Your task to perform on an android device: set the stopwatch Image 0: 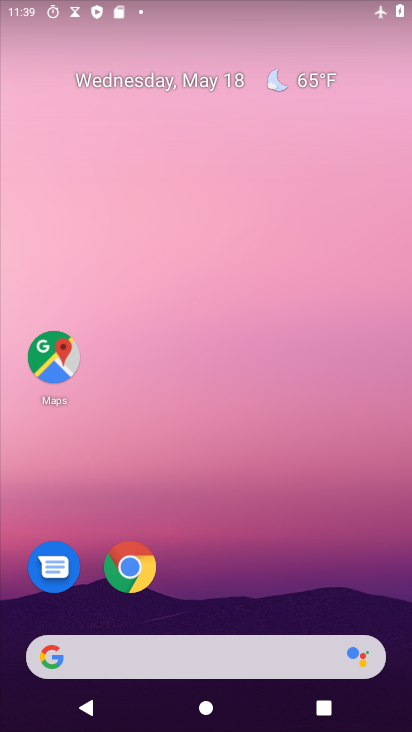
Step 0: drag from (253, 586) to (281, 147)
Your task to perform on an android device: set the stopwatch Image 1: 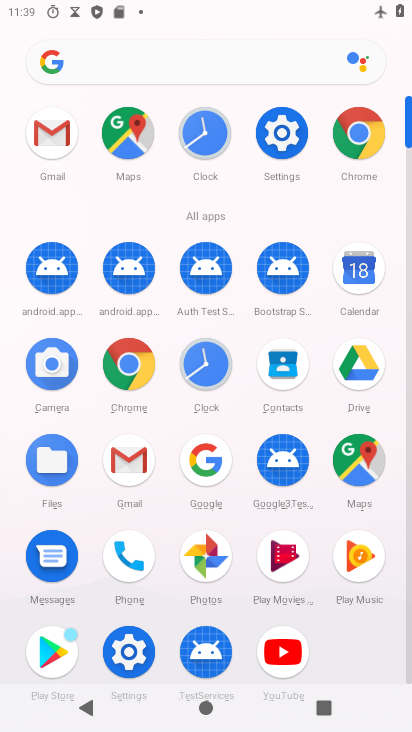
Step 1: click (213, 144)
Your task to perform on an android device: set the stopwatch Image 2: 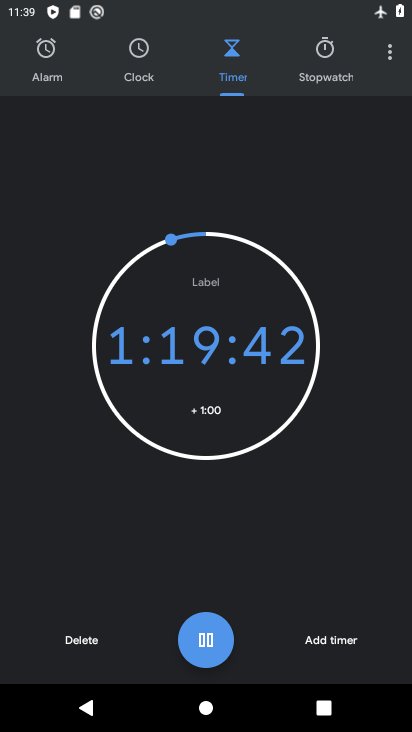
Step 2: click (326, 68)
Your task to perform on an android device: set the stopwatch Image 3: 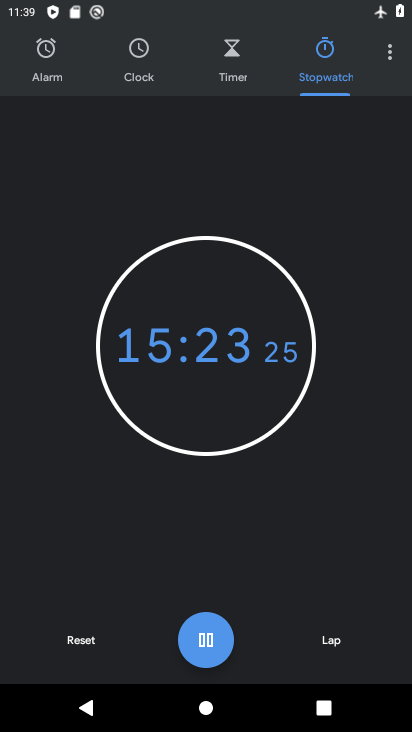
Step 3: task complete